Your task to perform on an android device: turn on notifications settings in the gmail app Image 0: 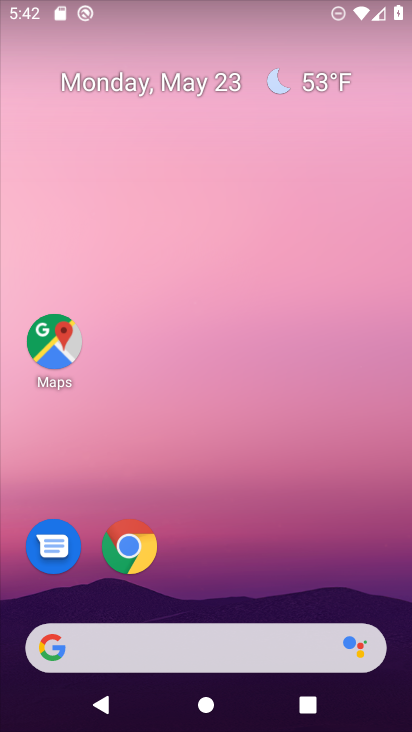
Step 0: drag from (242, 574) to (230, 7)
Your task to perform on an android device: turn on notifications settings in the gmail app Image 1: 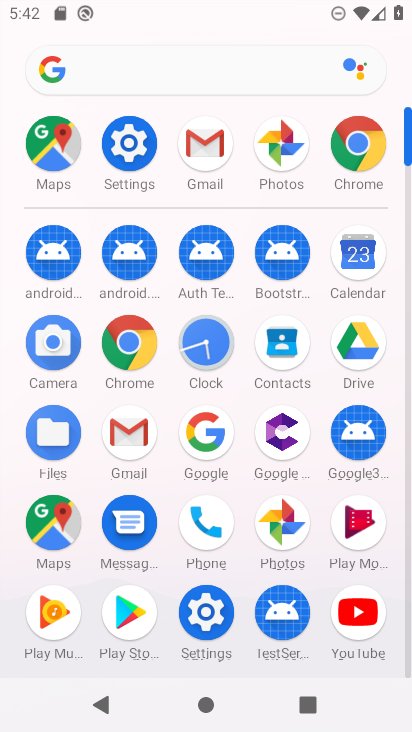
Step 1: click (198, 162)
Your task to perform on an android device: turn on notifications settings in the gmail app Image 2: 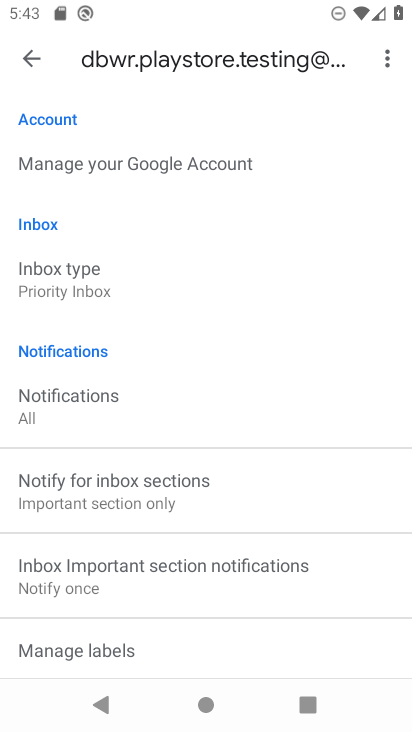
Step 2: drag from (289, 605) to (302, 285)
Your task to perform on an android device: turn on notifications settings in the gmail app Image 3: 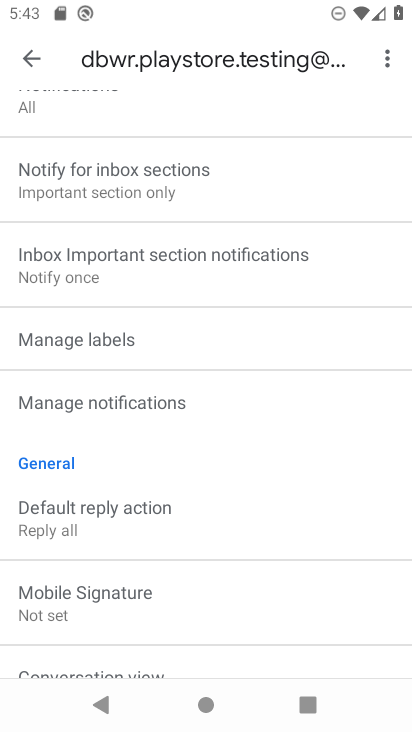
Step 3: click (153, 404)
Your task to perform on an android device: turn on notifications settings in the gmail app Image 4: 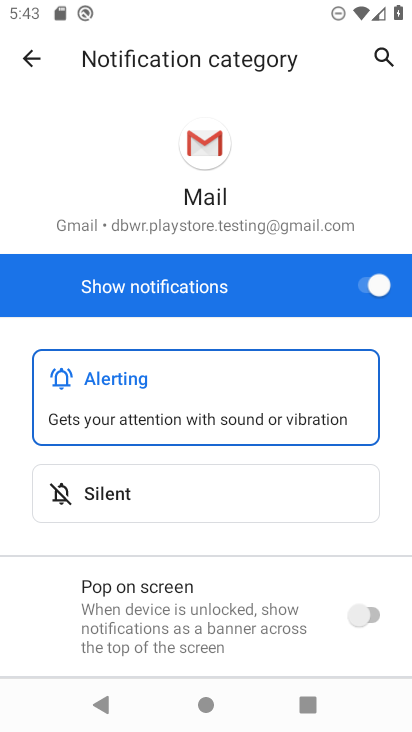
Step 4: task complete